Your task to perform on an android device: star an email in the gmail app Image 0: 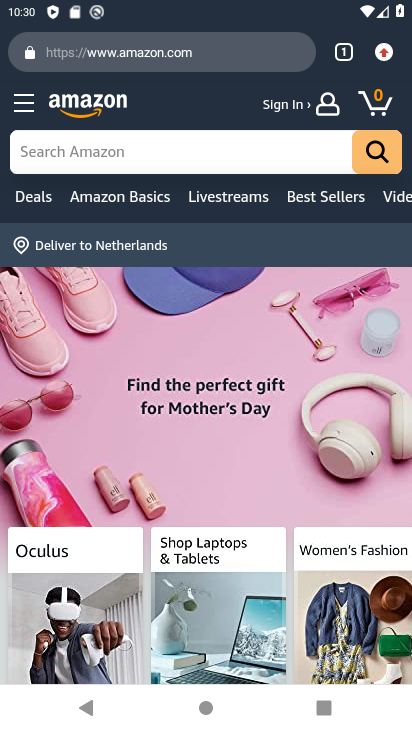
Step 0: press home button
Your task to perform on an android device: star an email in the gmail app Image 1: 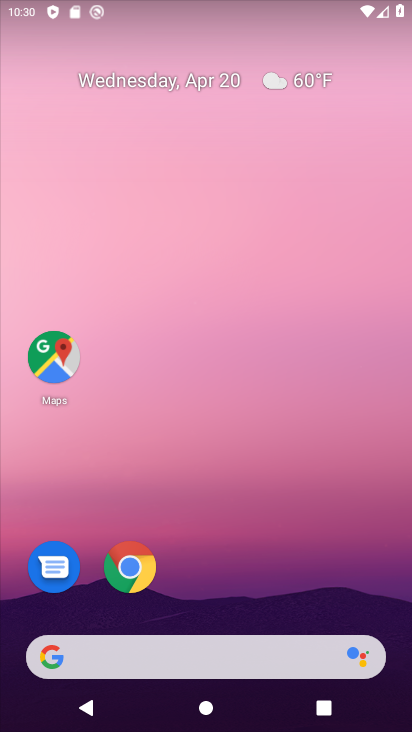
Step 1: drag from (310, 577) to (222, 109)
Your task to perform on an android device: star an email in the gmail app Image 2: 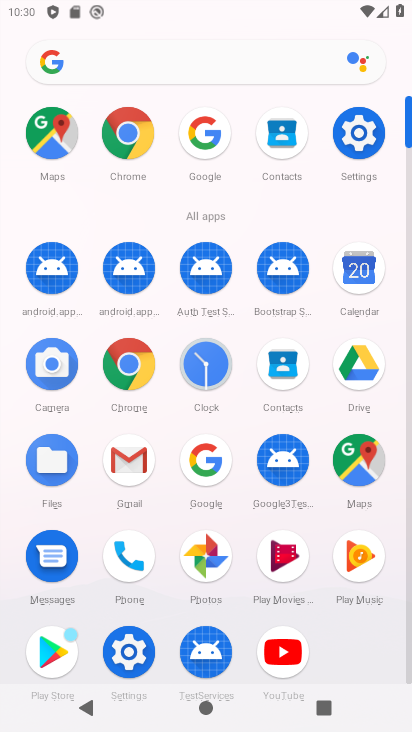
Step 2: click (152, 456)
Your task to perform on an android device: star an email in the gmail app Image 3: 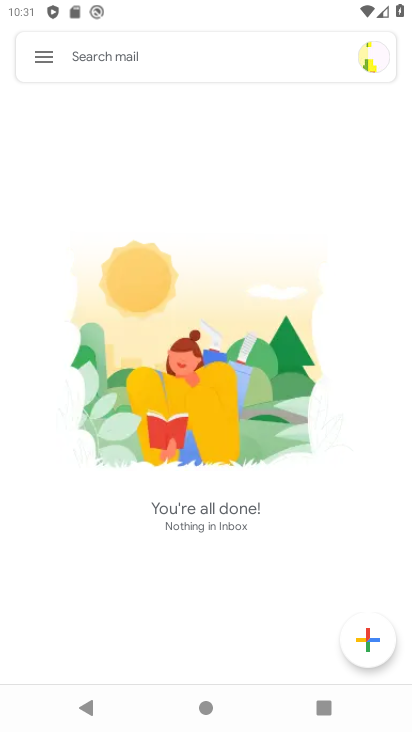
Step 3: click (39, 71)
Your task to perform on an android device: star an email in the gmail app Image 4: 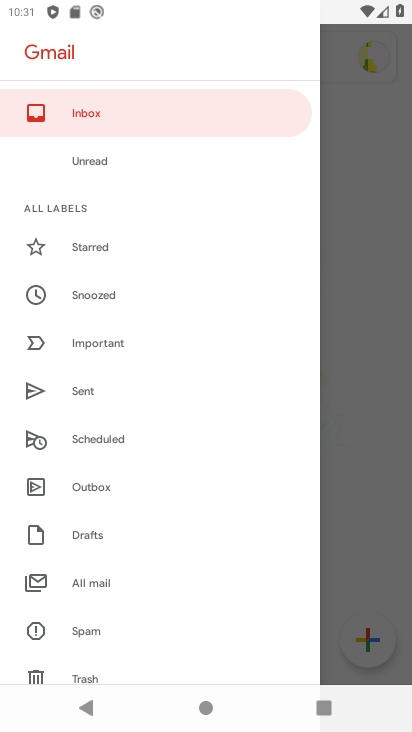
Step 4: click (109, 586)
Your task to perform on an android device: star an email in the gmail app Image 5: 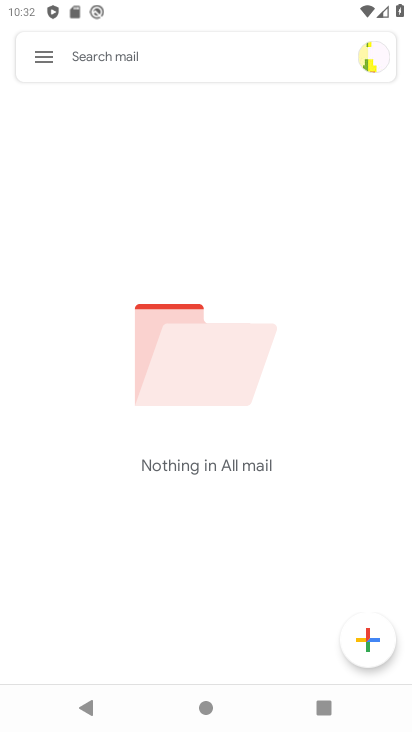
Step 5: task complete